Your task to perform on an android device: Show me recent news Image 0: 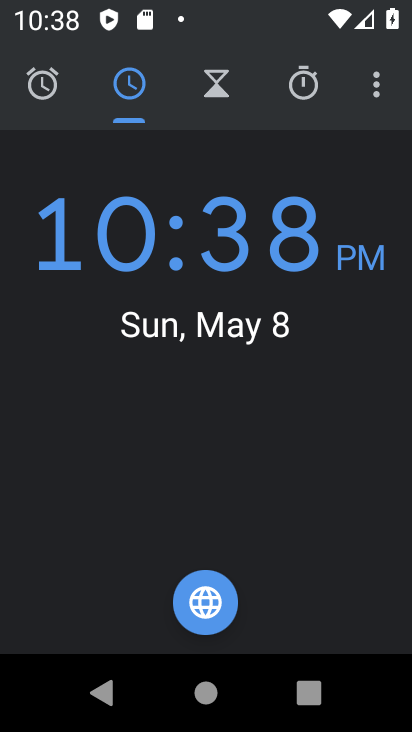
Step 0: press home button
Your task to perform on an android device: Show me recent news Image 1: 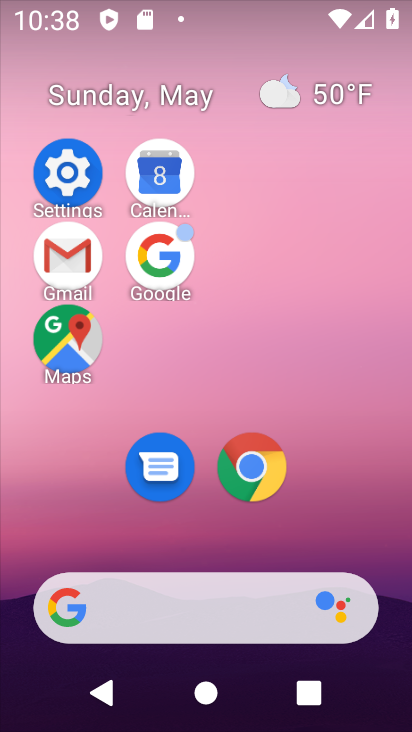
Step 1: click (139, 257)
Your task to perform on an android device: Show me recent news Image 2: 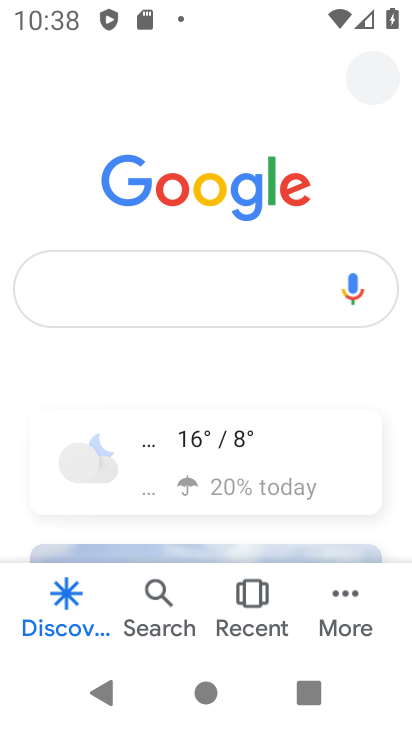
Step 2: click (108, 288)
Your task to perform on an android device: Show me recent news Image 3: 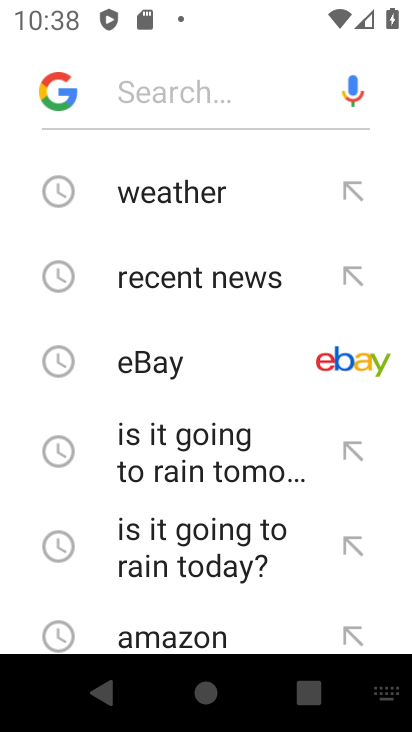
Step 3: click (207, 267)
Your task to perform on an android device: Show me recent news Image 4: 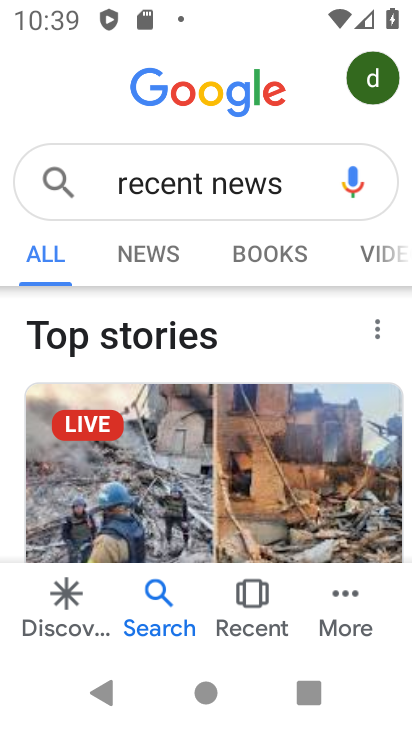
Step 4: task complete